Your task to perform on an android device: turn on showing notifications on the lock screen Image 0: 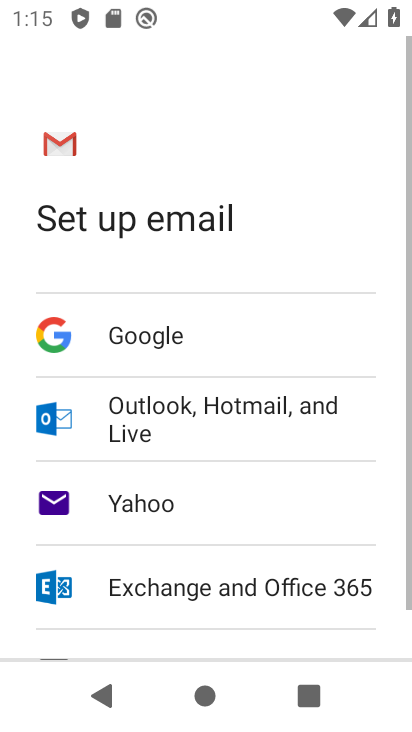
Step 0: press home button
Your task to perform on an android device: turn on showing notifications on the lock screen Image 1: 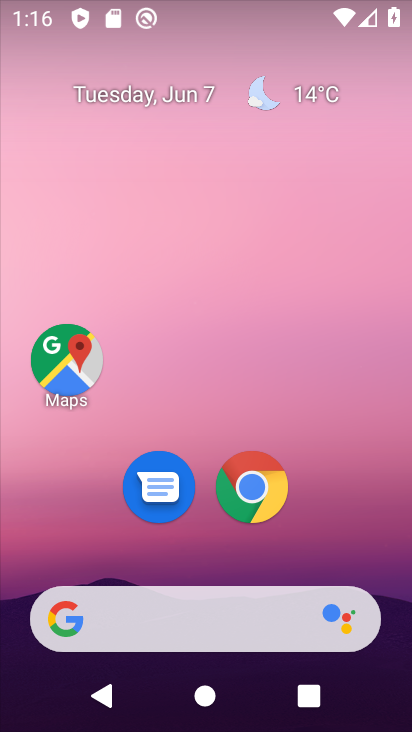
Step 1: drag from (223, 556) to (114, 117)
Your task to perform on an android device: turn on showing notifications on the lock screen Image 2: 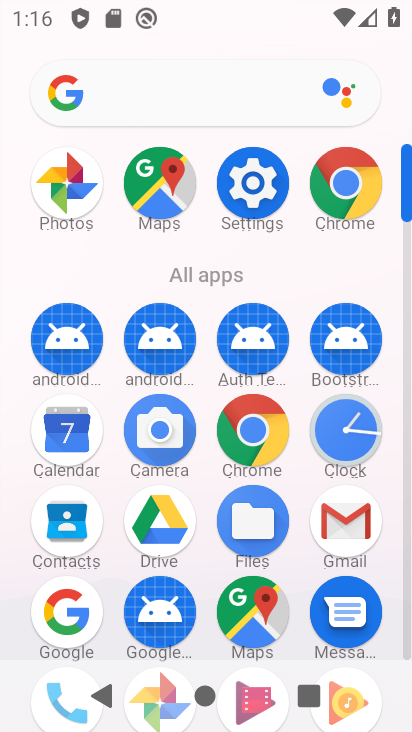
Step 2: click (240, 157)
Your task to perform on an android device: turn on showing notifications on the lock screen Image 3: 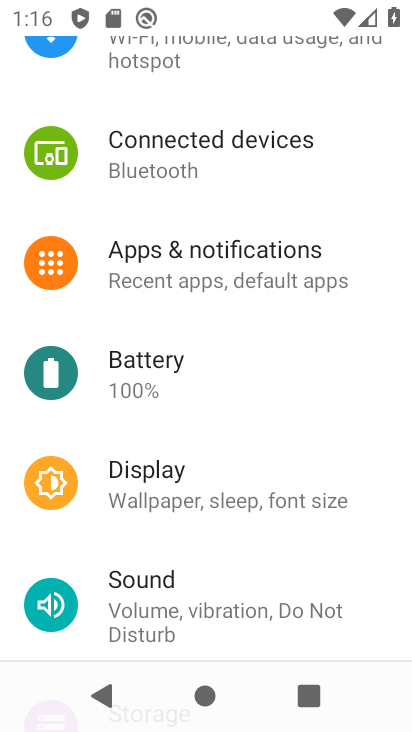
Step 3: click (185, 272)
Your task to perform on an android device: turn on showing notifications on the lock screen Image 4: 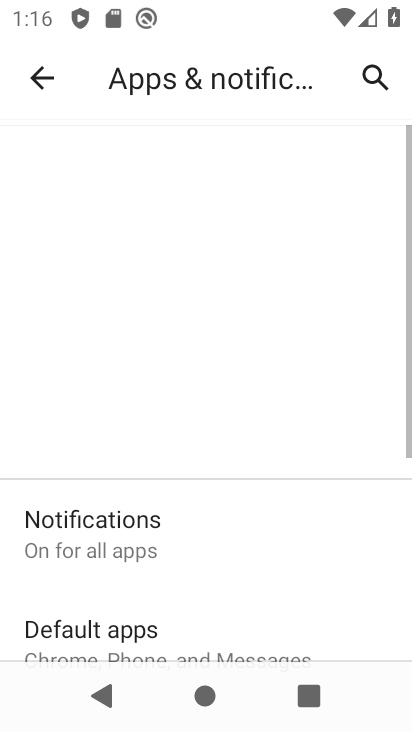
Step 4: click (174, 563)
Your task to perform on an android device: turn on showing notifications on the lock screen Image 5: 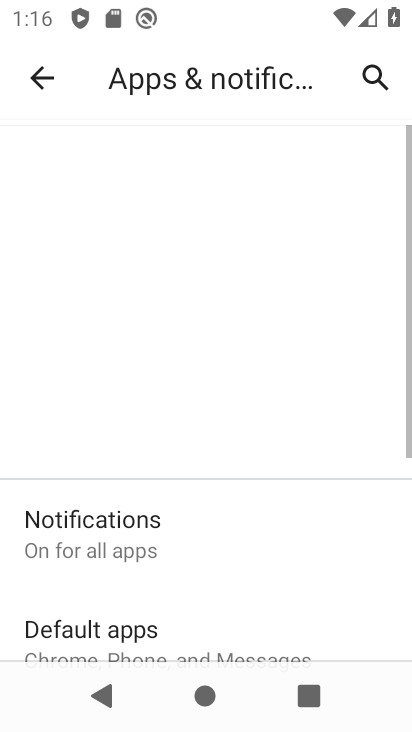
Step 5: drag from (179, 575) to (146, 95)
Your task to perform on an android device: turn on showing notifications on the lock screen Image 6: 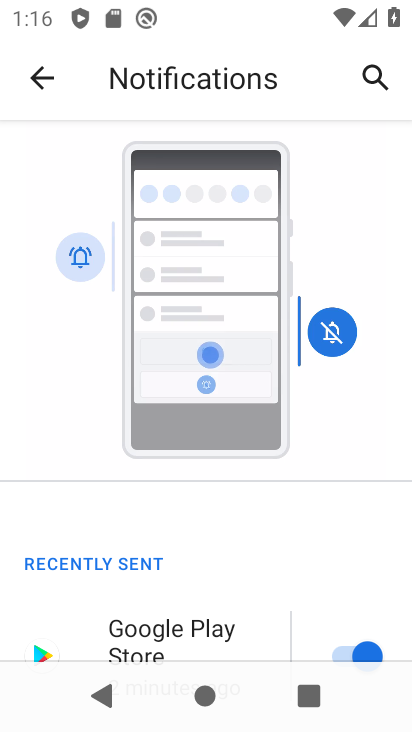
Step 6: drag from (184, 558) to (178, 16)
Your task to perform on an android device: turn on showing notifications on the lock screen Image 7: 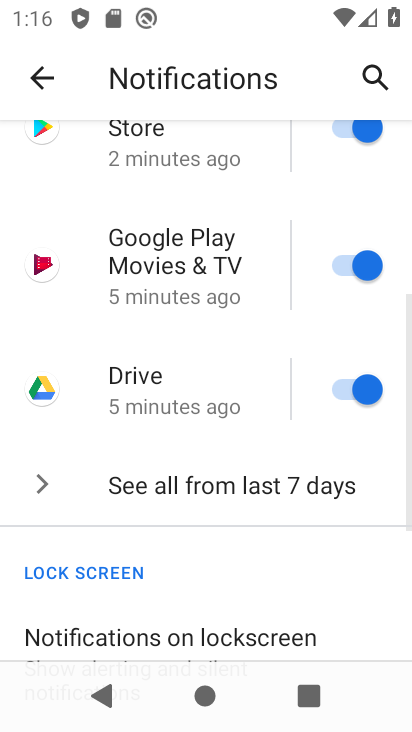
Step 7: click (190, 624)
Your task to perform on an android device: turn on showing notifications on the lock screen Image 8: 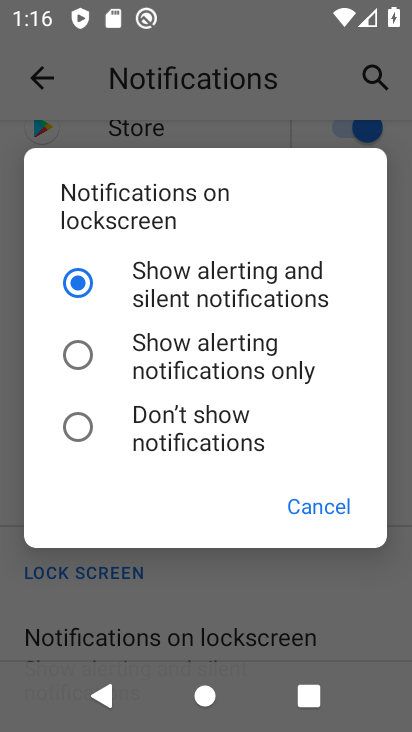
Step 8: click (132, 299)
Your task to perform on an android device: turn on showing notifications on the lock screen Image 9: 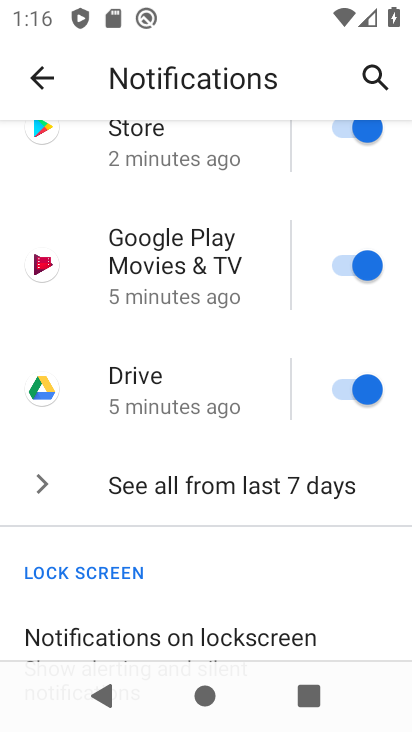
Step 9: task complete